Your task to perform on an android device: turn pop-ups off in chrome Image 0: 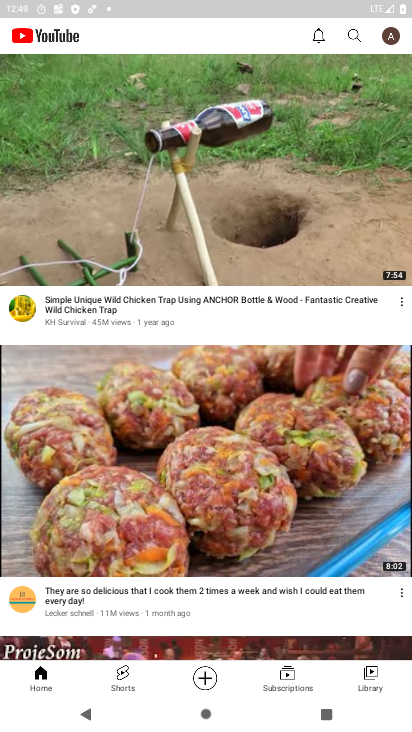
Step 0: drag from (297, 612) to (251, 248)
Your task to perform on an android device: turn pop-ups off in chrome Image 1: 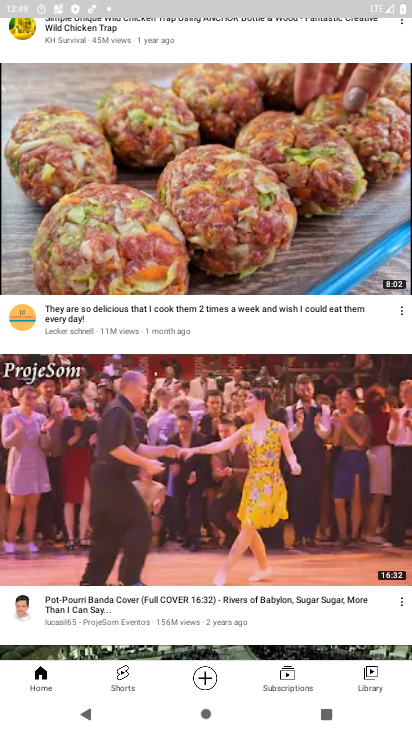
Step 1: press home button
Your task to perform on an android device: turn pop-ups off in chrome Image 2: 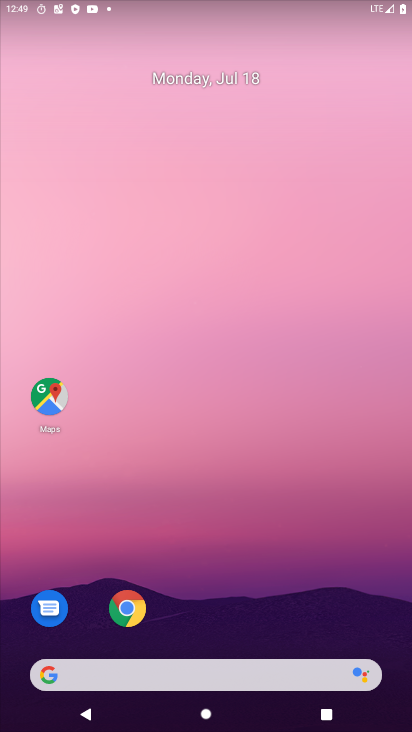
Step 2: drag from (267, 613) to (175, 4)
Your task to perform on an android device: turn pop-ups off in chrome Image 3: 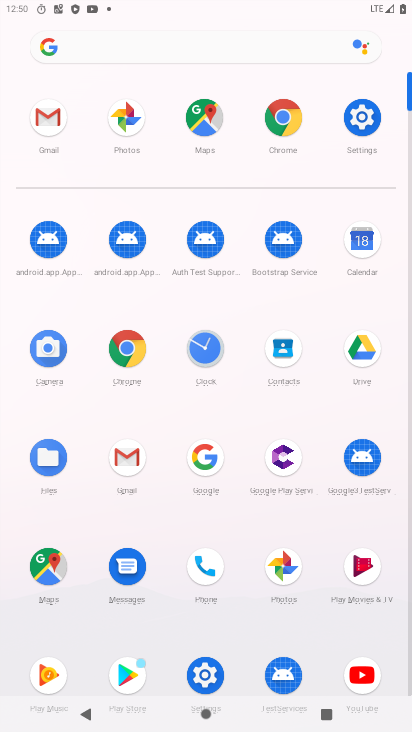
Step 3: click (294, 125)
Your task to perform on an android device: turn pop-ups off in chrome Image 4: 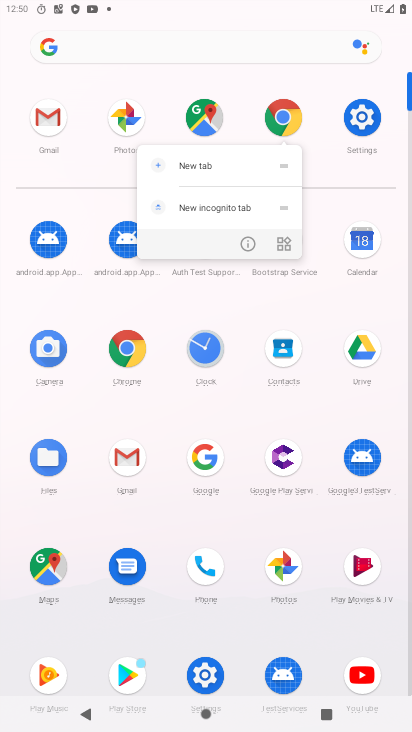
Step 4: click (294, 124)
Your task to perform on an android device: turn pop-ups off in chrome Image 5: 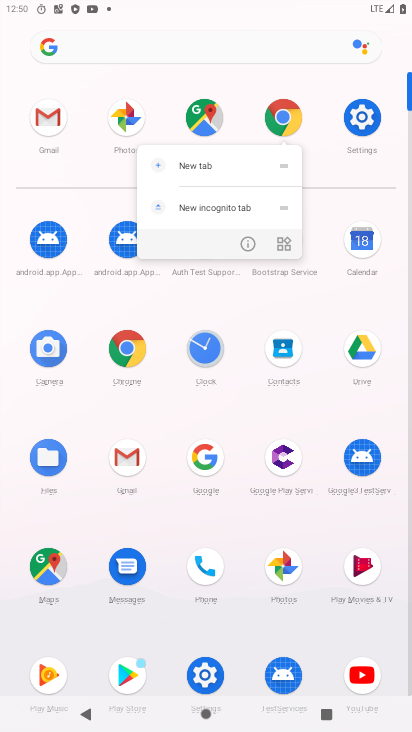
Step 5: click (276, 117)
Your task to perform on an android device: turn pop-ups off in chrome Image 6: 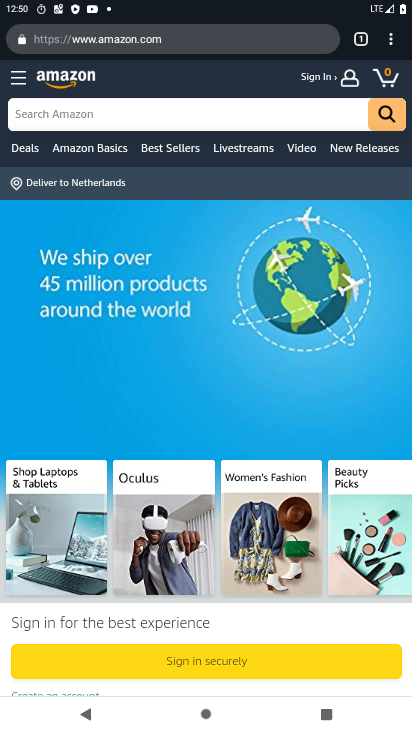
Step 6: drag from (396, 45) to (292, 480)
Your task to perform on an android device: turn pop-ups off in chrome Image 7: 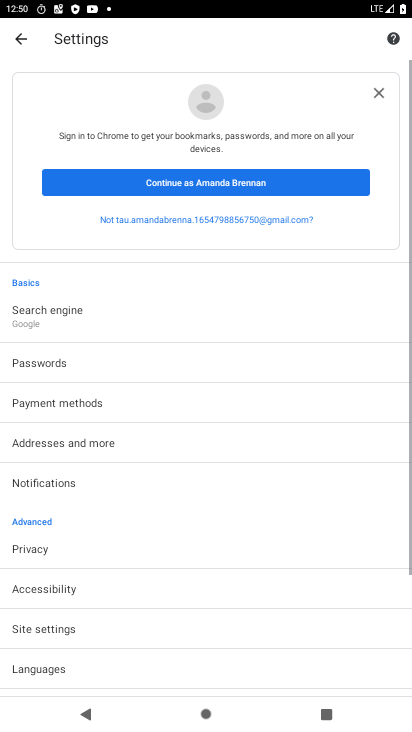
Step 7: drag from (234, 624) to (258, 192)
Your task to perform on an android device: turn pop-ups off in chrome Image 8: 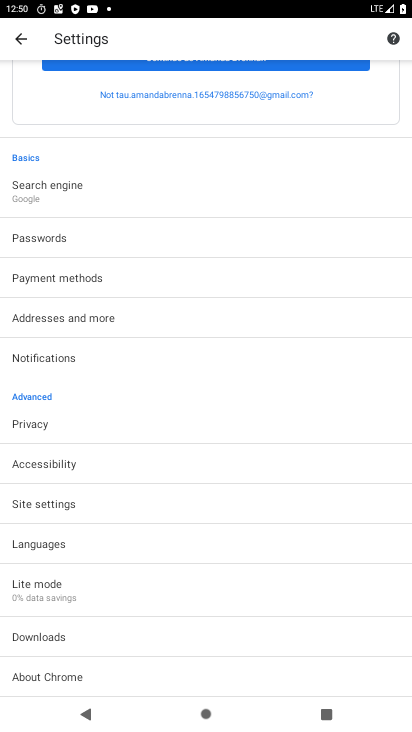
Step 8: click (90, 511)
Your task to perform on an android device: turn pop-ups off in chrome Image 9: 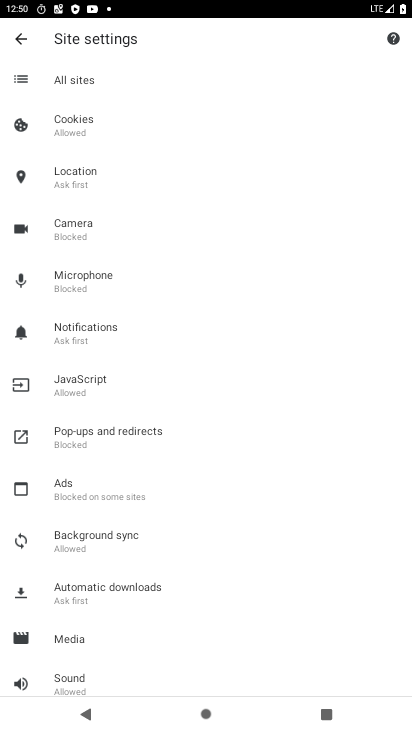
Step 9: click (106, 438)
Your task to perform on an android device: turn pop-ups off in chrome Image 10: 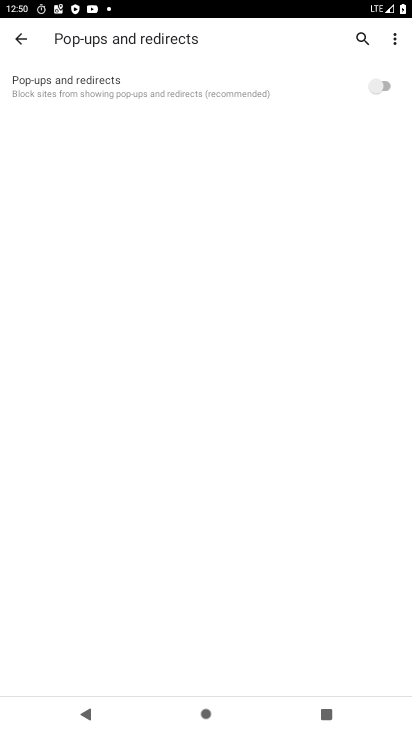
Step 10: task complete